Your task to perform on an android device: check storage Image 0: 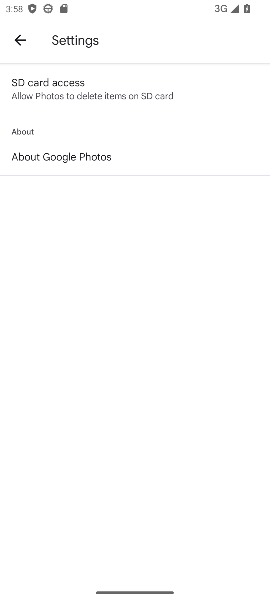
Step 0: press home button
Your task to perform on an android device: check storage Image 1: 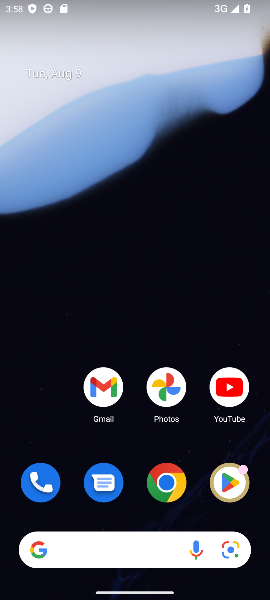
Step 1: drag from (140, 494) to (148, 137)
Your task to perform on an android device: check storage Image 2: 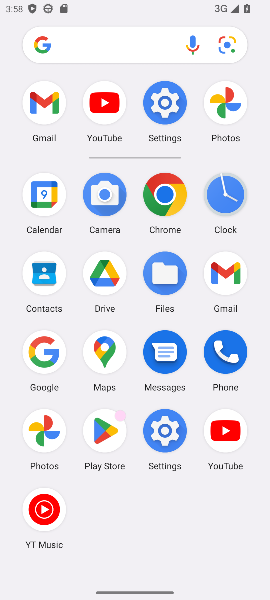
Step 2: click (163, 97)
Your task to perform on an android device: check storage Image 3: 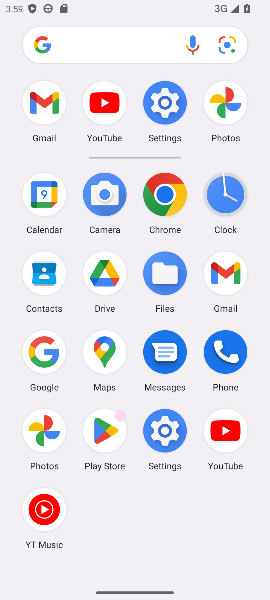
Step 3: click (141, 115)
Your task to perform on an android device: check storage Image 4: 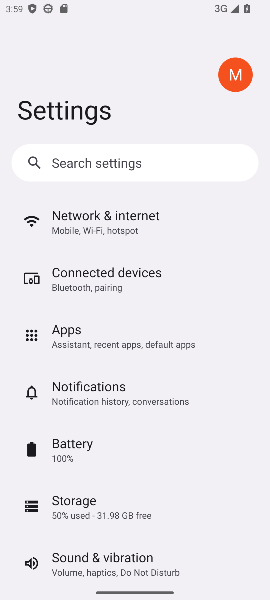
Step 4: drag from (140, 475) to (148, 368)
Your task to perform on an android device: check storage Image 5: 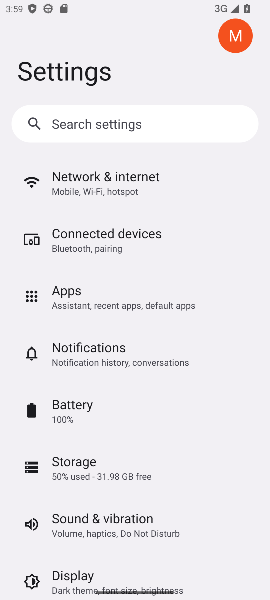
Step 5: click (113, 464)
Your task to perform on an android device: check storage Image 6: 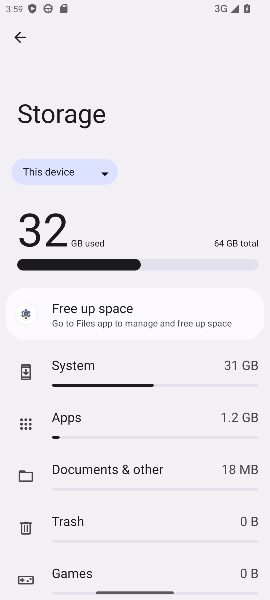
Step 6: task complete